Your task to perform on an android device: Show me recent news Image 0: 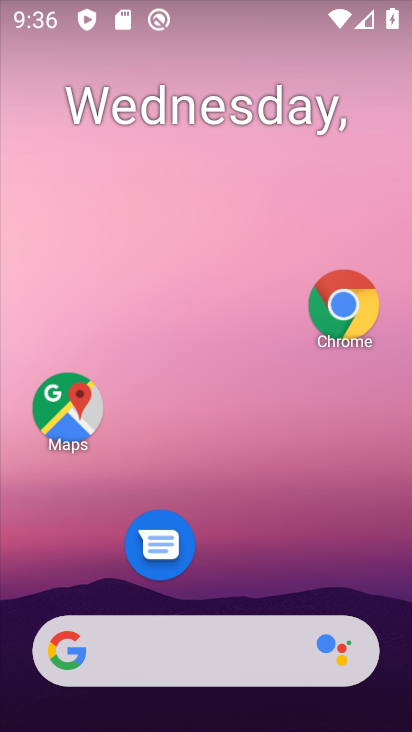
Step 0: drag from (317, 545) to (326, 288)
Your task to perform on an android device: Show me recent news Image 1: 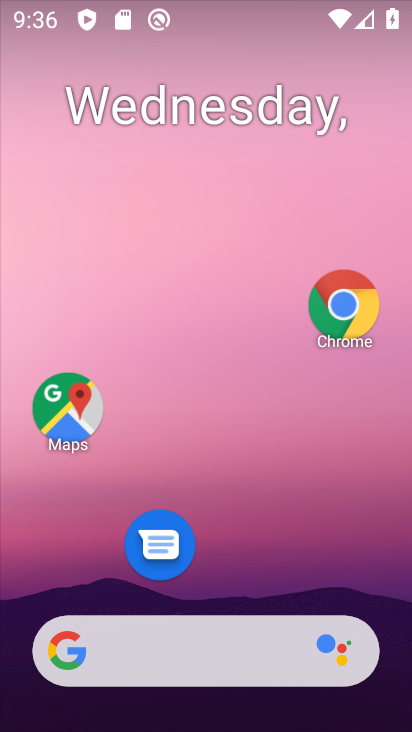
Step 1: click (240, 552)
Your task to perform on an android device: Show me recent news Image 2: 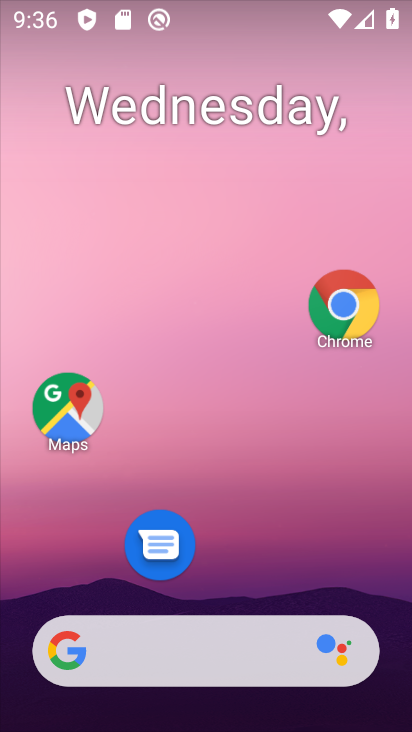
Step 2: drag from (241, 601) to (268, 231)
Your task to perform on an android device: Show me recent news Image 3: 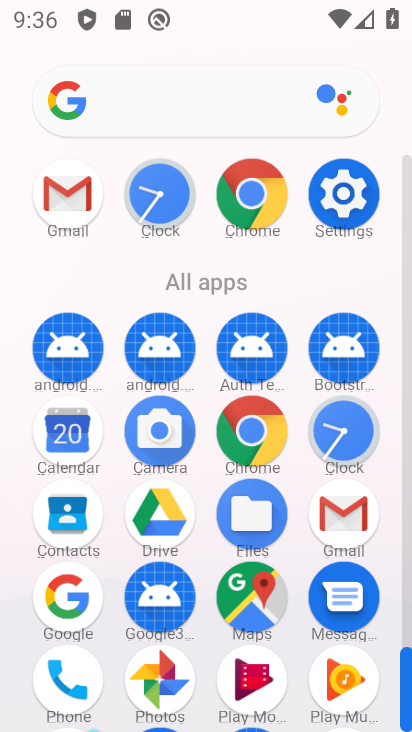
Step 3: click (59, 612)
Your task to perform on an android device: Show me recent news Image 4: 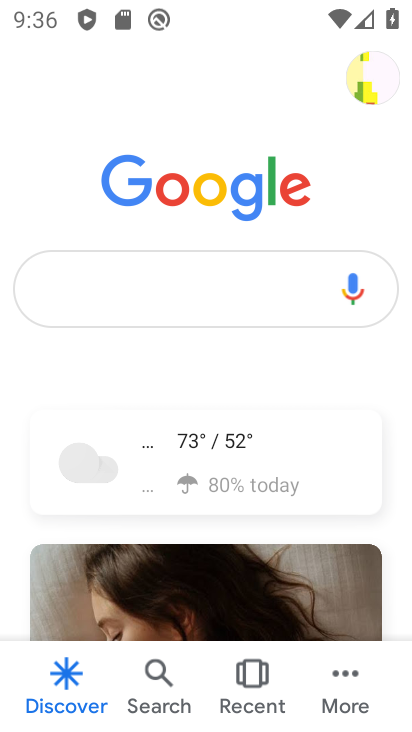
Step 4: click (202, 293)
Your task to perform on an android device: Show me recent news Image 5: 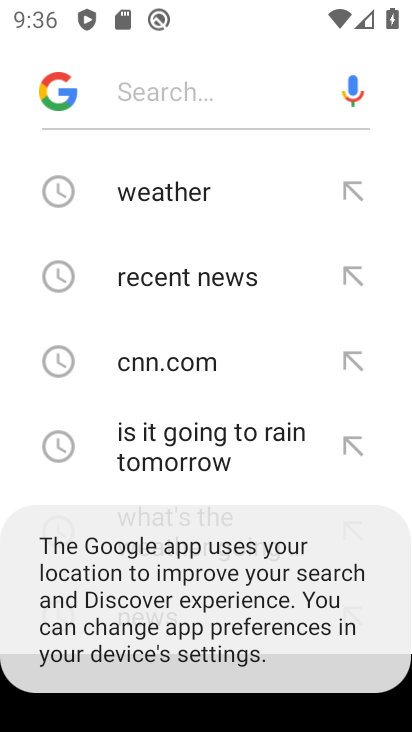
Step 5: click (202, 293)
Your task to perform on an android device: Show me recent news Image 6: 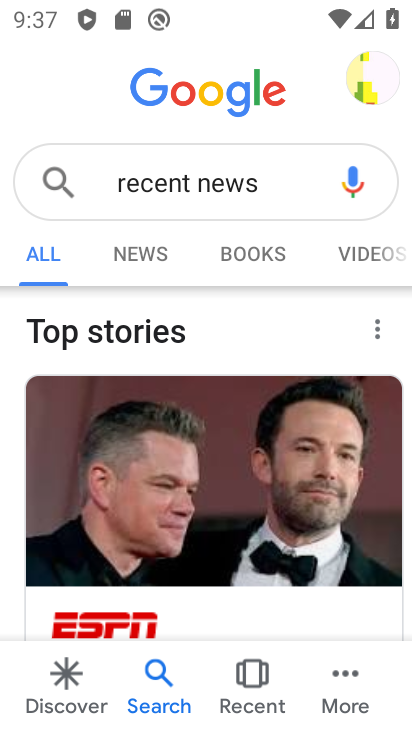
Step 6: click (159, 259)
Your task to perform on an android device: Show me recent news Image 7: 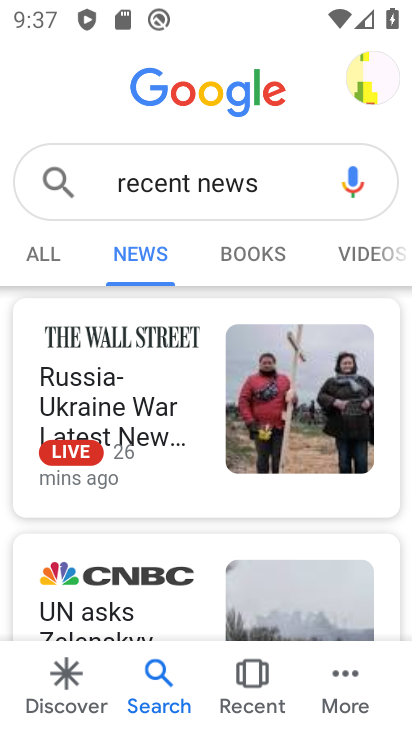
Step 7: task complete